Your task to perform on an android device: Go to privacy settings Image 0: 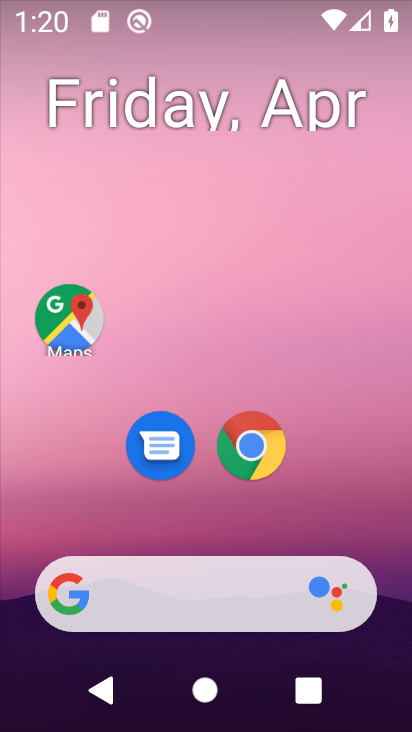
Step 0: drag from (357, 519) to (383, 72)
Your task to perform on an android device: Go to privacy settings Image 1: 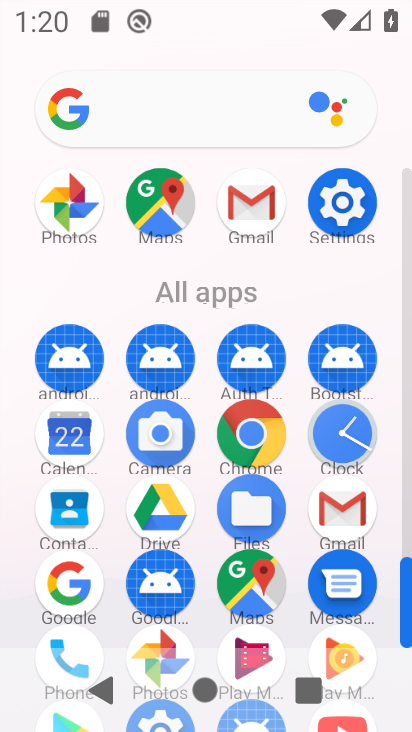
Step 1: click (361, 204)
Your task to perform on an android device: Go to privacy settings Image 2: 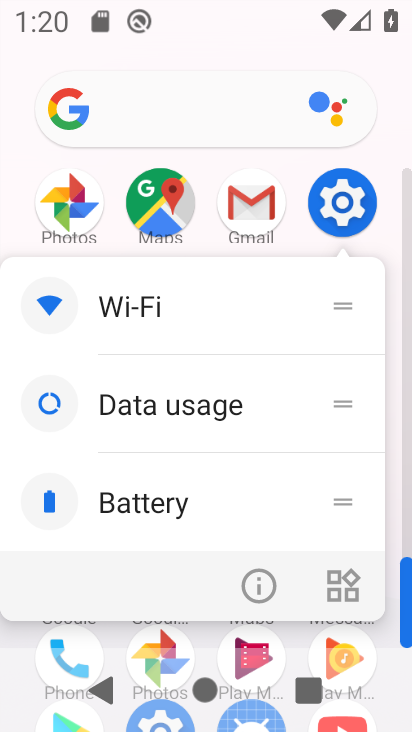
Step 2: click (362, 223)
Your task to perform on an android device: Go to privacy settings Image 3: 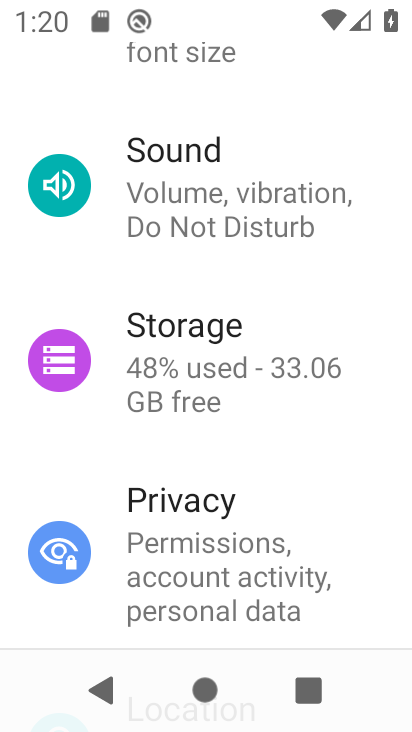
Step 3: drag from (373, 279) to (365, 425)
Your task to perform on an android device: Go to privacy settings Image 4: 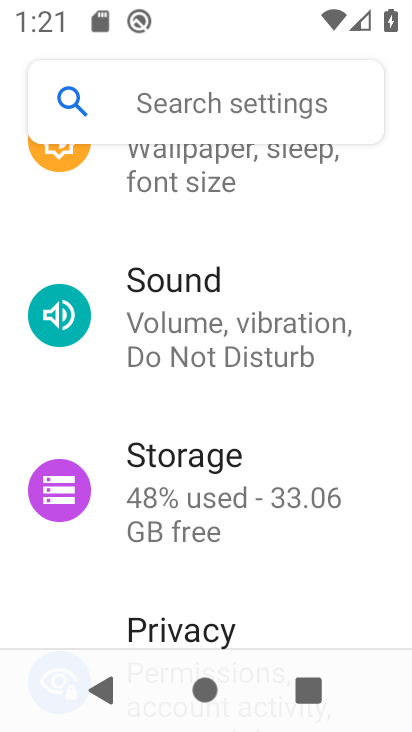
Step 4: drag from (377, 267) to (377, 408)
Your task to perform on an android device: Go to privacy settings Image 5: 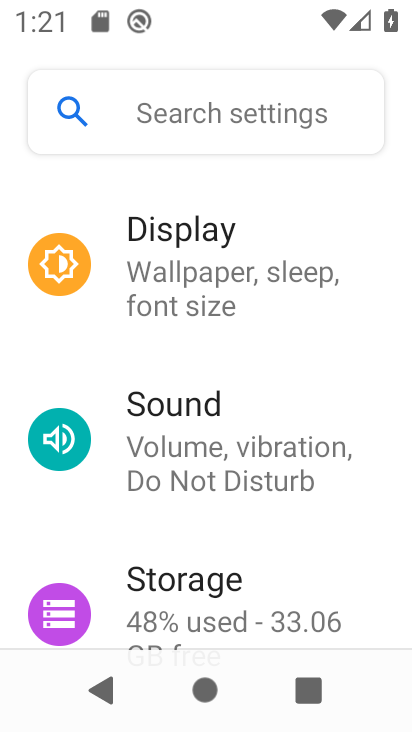
Step 5: drag from (375, 263) to (370, 417)
Your task to perform on an android device: Go to privacy settings Image 6: 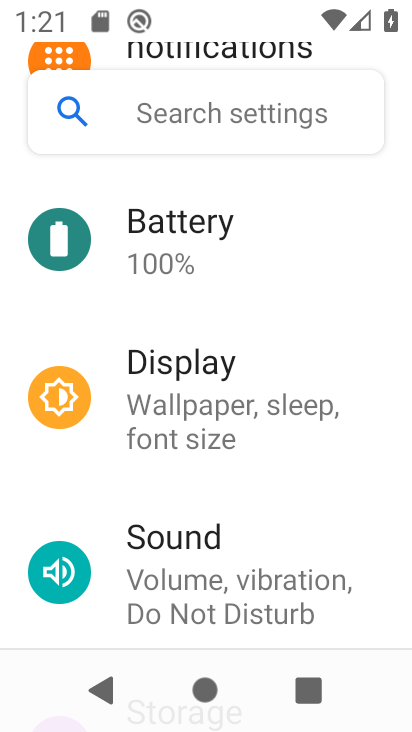
Step 6: drag from (376, 256) to (377, 406)
Your task to perform on an android device: Go to privacy settings Image 7: 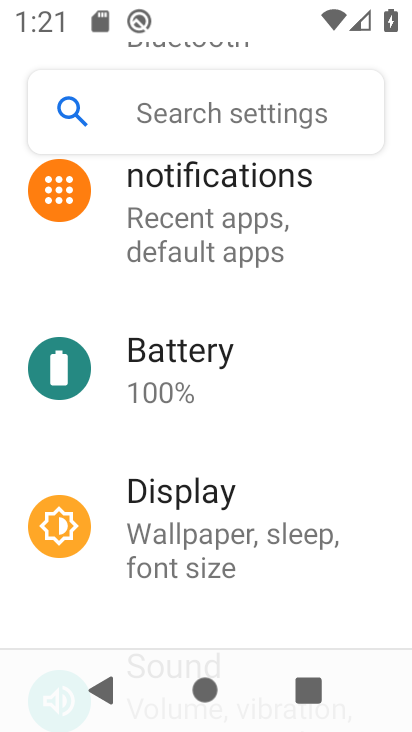
Step 7: drag from (372, 247) to (370, 396)
Your task to perform on an android device: Go to privacy settings Image 8: 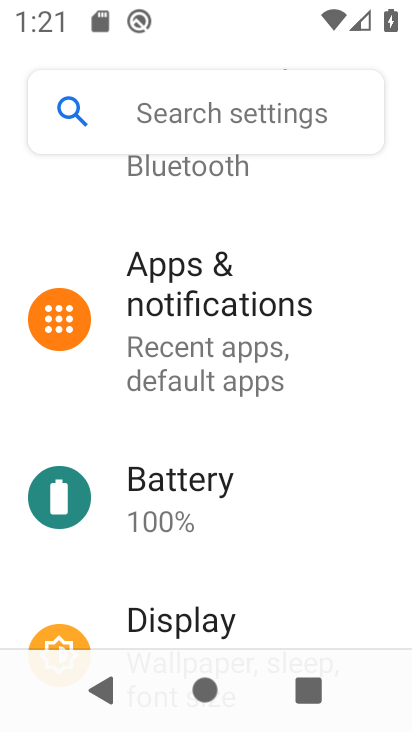
Step 8: drag from (363, 254) to (363, 392)
Your task to perform on an android device: Go to privacy settings Image 9: 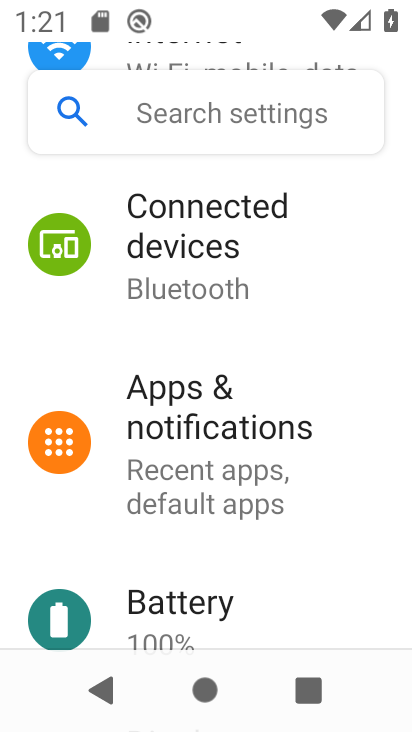
Step 9: drag from (368, 256) to (362, 396)
Your task to perform on an android device: Go to privacy settings Image 10: 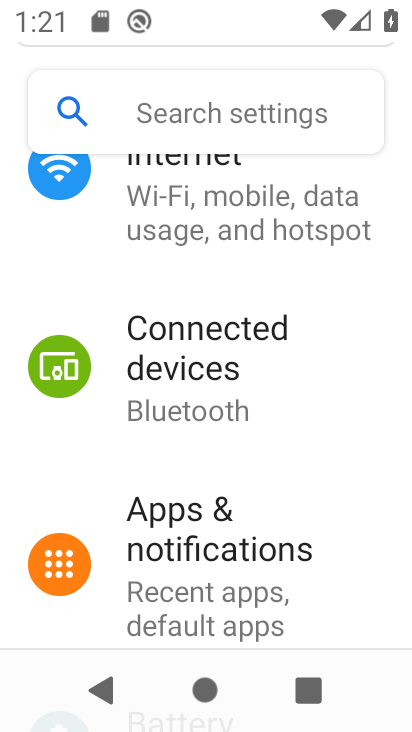
Step 10: drag from (368, 297) to (367, 441)
Your task to perform on an android device: Go to privacy settings Image 11: 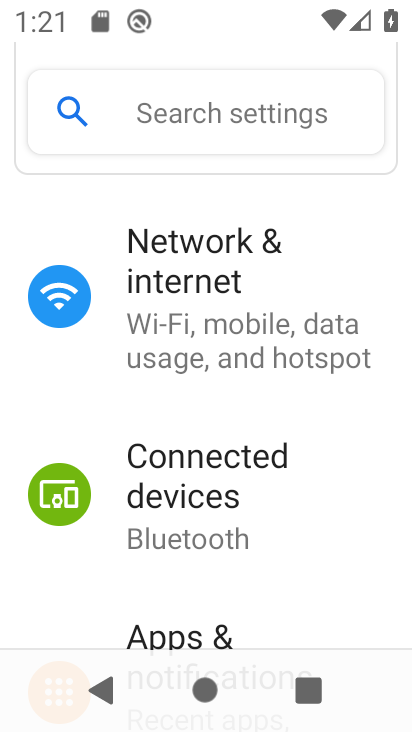
Step 11: drag from (352, 492) to (368, 314)
Your task to perform on an android device: Go to privacy settings Image 12: 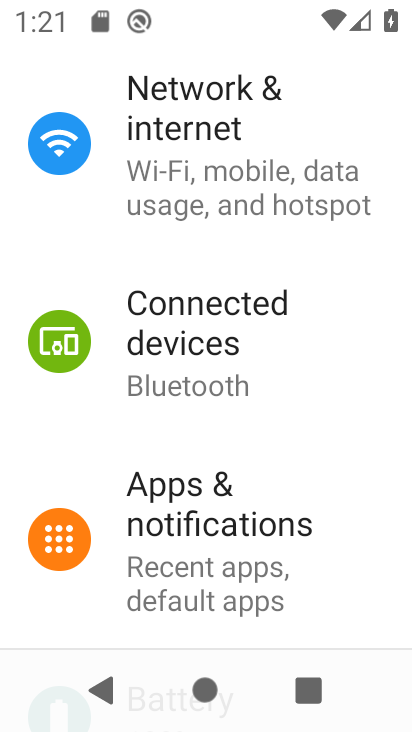
Step 12: drag from (357, 549) to (348, 351)
Your task to perform on an android device: Go to privacy settings Image 13: 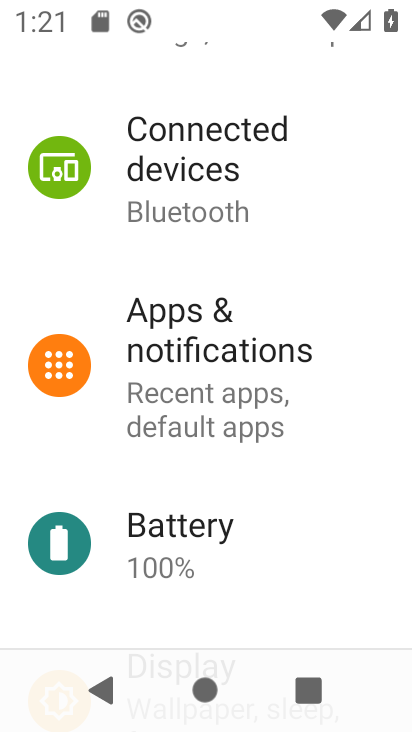
Step 13: drag from (357, 567) to (366, 379)
Your task to perform on an android device: Go to privacy settings Image 14: 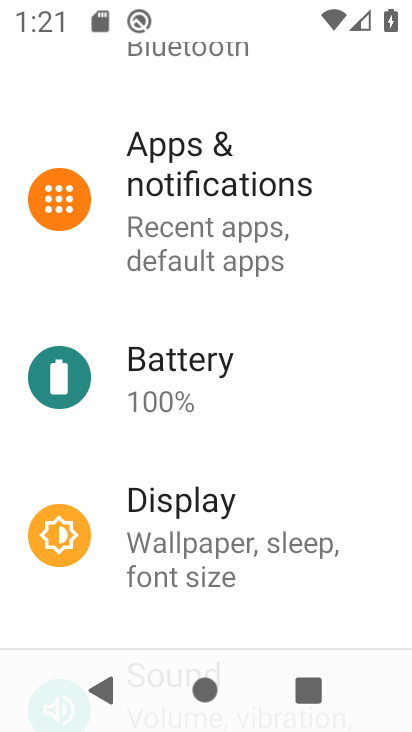
Step 14: drag from (368, 568) to (378, 362)
Your task to perform on an android device: Go to privacy settings Image 15: 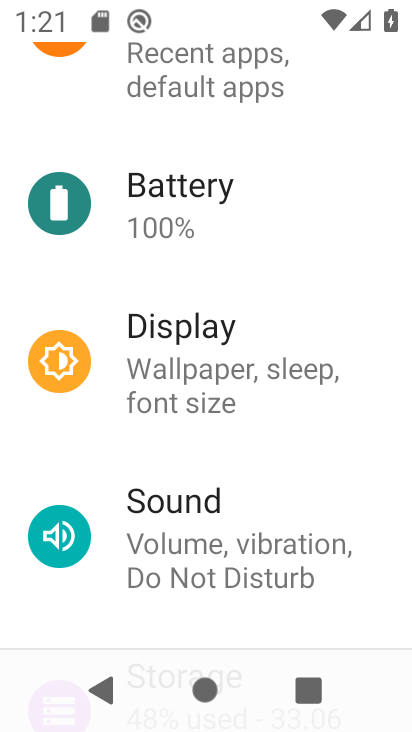
Step 15: drag from (370, 548) to (367, 343)
Your task to perform on an android device: Go to privacy settings Image 16: 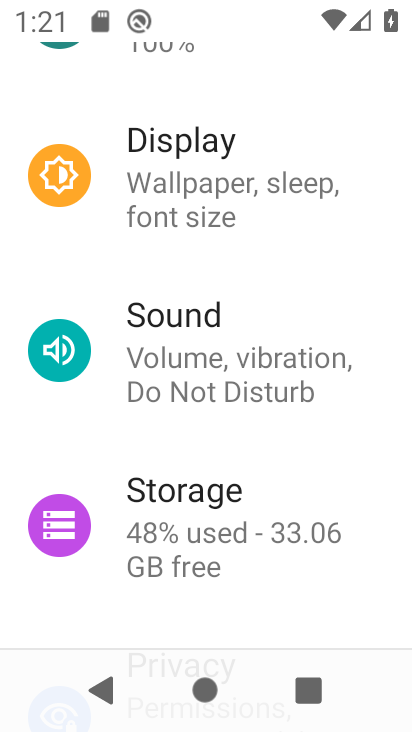
Step 16: drag from (374, 575) to (373, 382)
Your task to perform on an android device: Go to privacy settings Image 17: 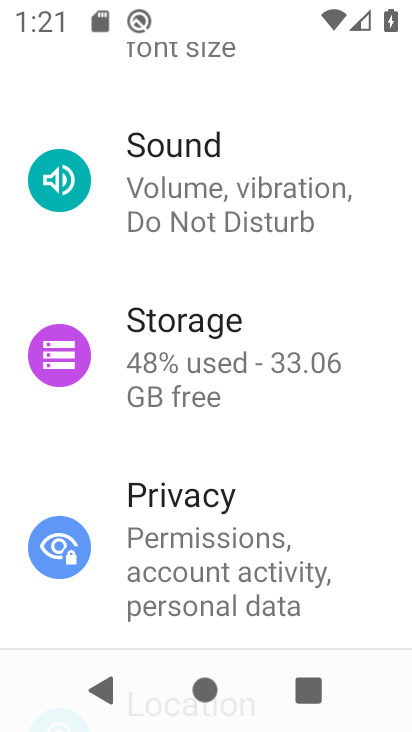
Step 17: click (216, 530)
Your task to perform on an android device: Go to privacy settings Image 18: 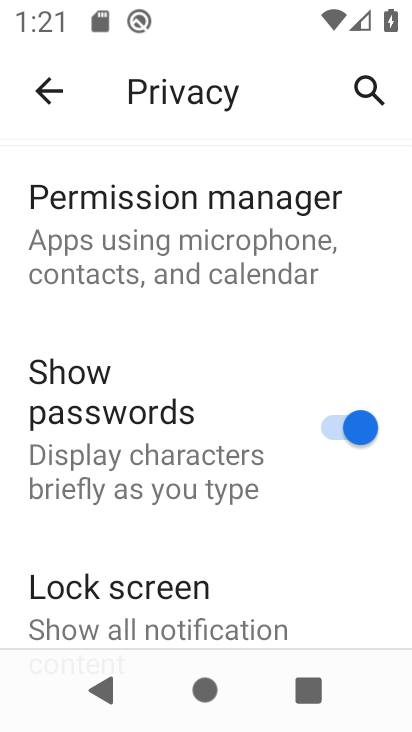
Step 18: task complete